Your task to perform on an android device: add a contact in the contacts app Image 0: 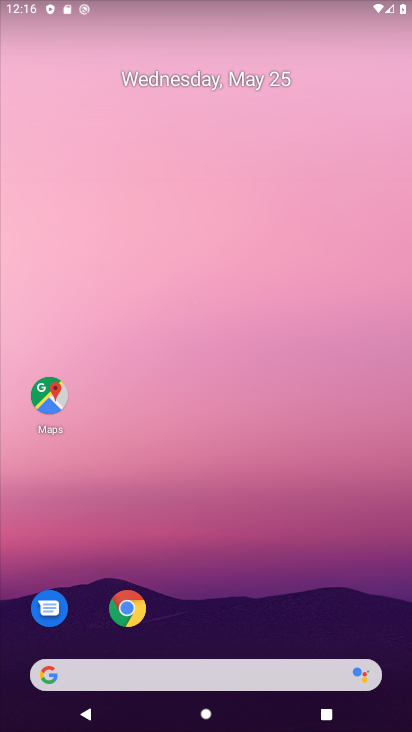
Step 0: drag from (208, 682) to (261, 110)
Your task to perform on an android device: add a contact in the contacts app Image 1: 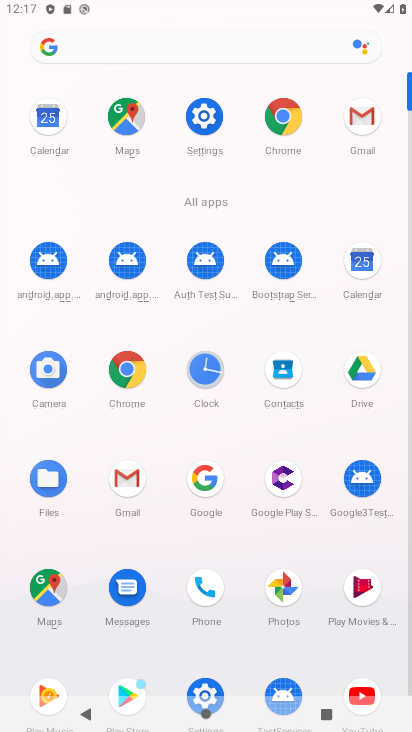
Step 1: click (298, 379)
Your task to perform on an android device: add a contact in the contacts app Image 2: 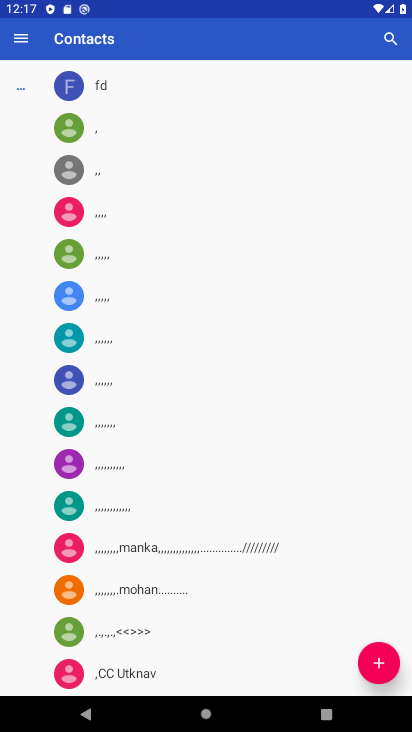
Step 2: click (382, 663)
Your task to perform on an android device: add a contact in the contacts app Image 3: 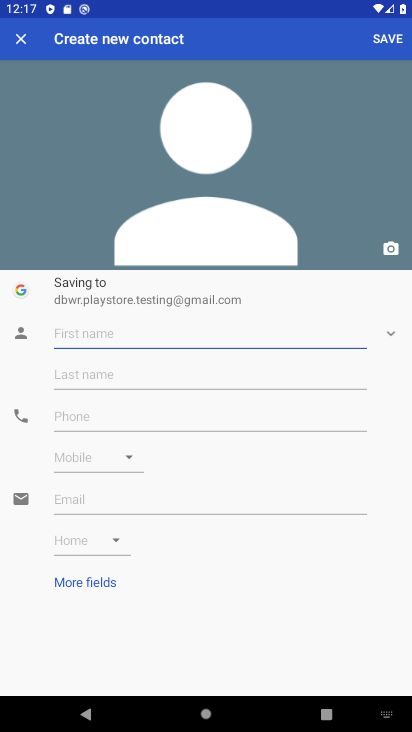
Step 3: click (228, 331)
Your task to perform on an android device: add a contact in the contacts app Image 4: 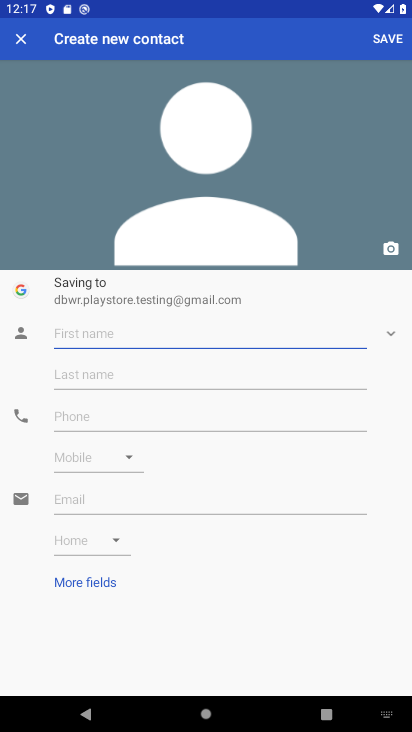
Step 4: type "kjbik"
Your task to perform on an android device: add a contact in the contacts app Image 5: 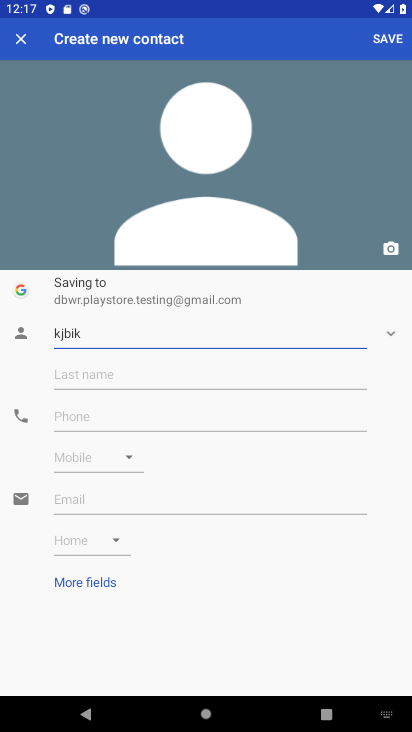
Step 5: click (130, 407)
Your task to perform on an android device: add a contact in the contacts app Image 6: 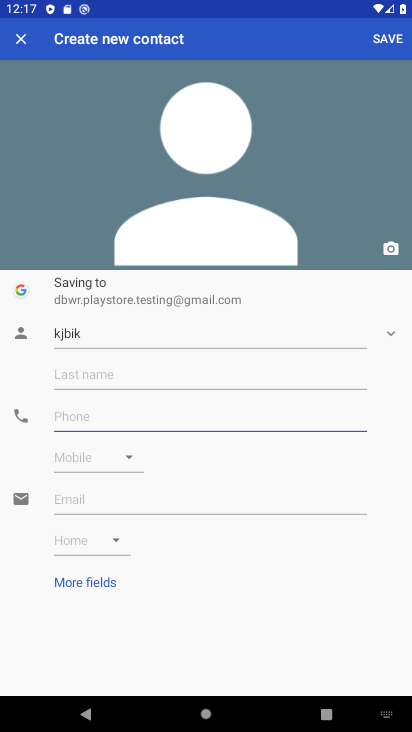
Step 6: type "8979"
Your task to perform on an android device: add a contact in the contacts app Image 7: 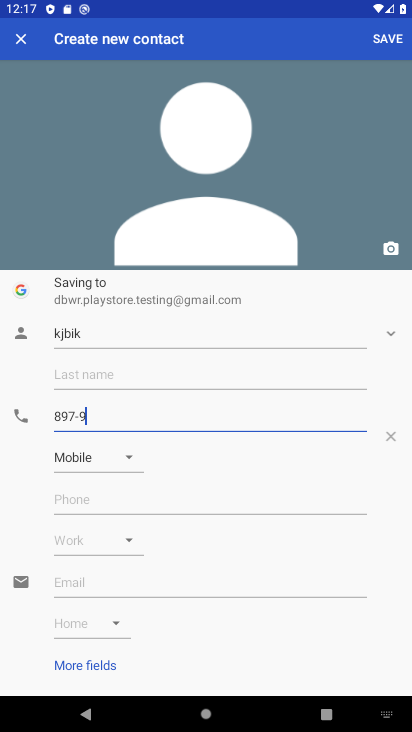
Step 7: click (398, 41)
Your task to perform on an android device: add a contact in the contacts app Image 8: 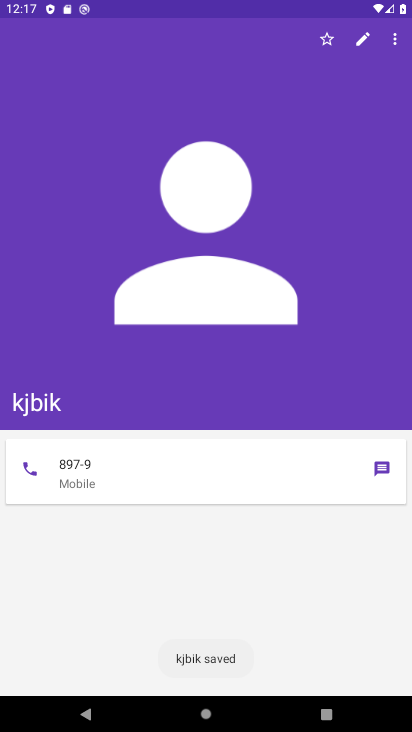
Step 8: task complete